Your task to perform on an android device: Open location settings Image 0: 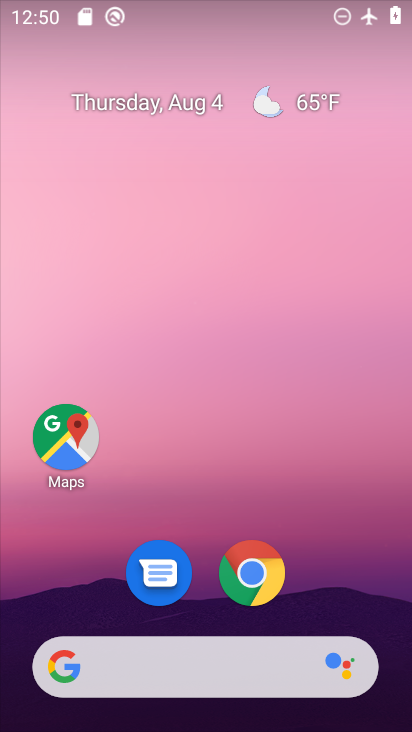
Step 0: drag from (350, 535) to (357, 115)
Your task to perform on an android device: Open location settings Image 1: 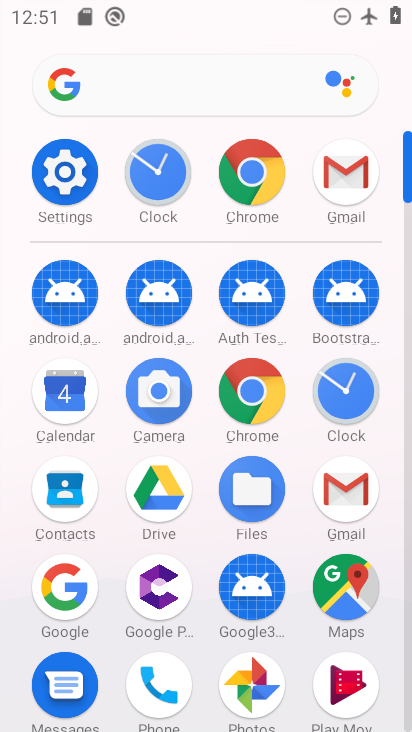
Step 1: click (66, 168)
Your task to perform on an android device: Open location settings Image 2: 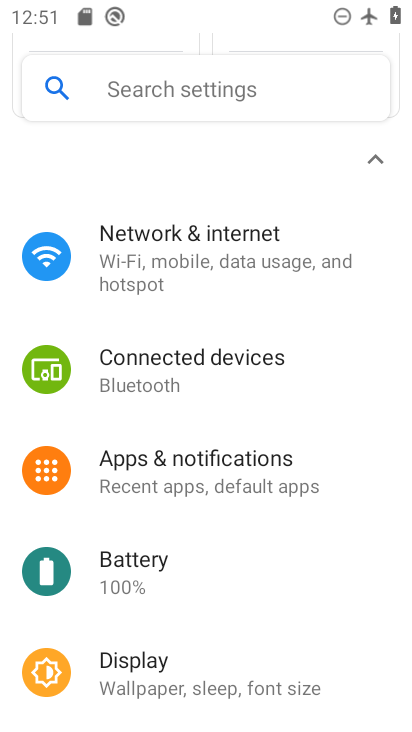
Step 2: drag from (273, 569) to (363, 79)
Your task to perform on an android device: Open location settings Image 3: 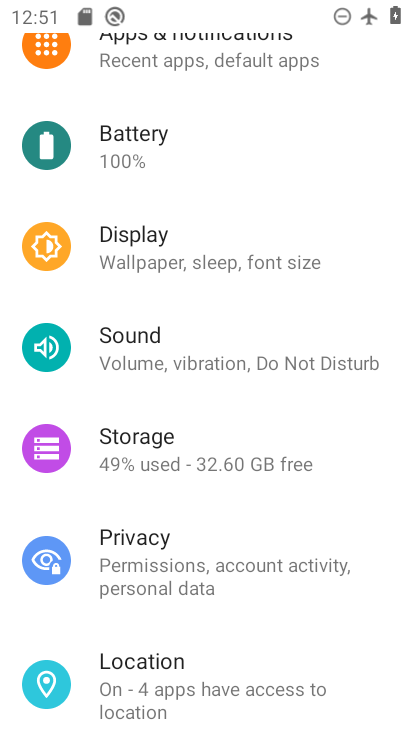
Step 3: click (149, 684)
Your task to perform on an android device: Open location settings Image 4: 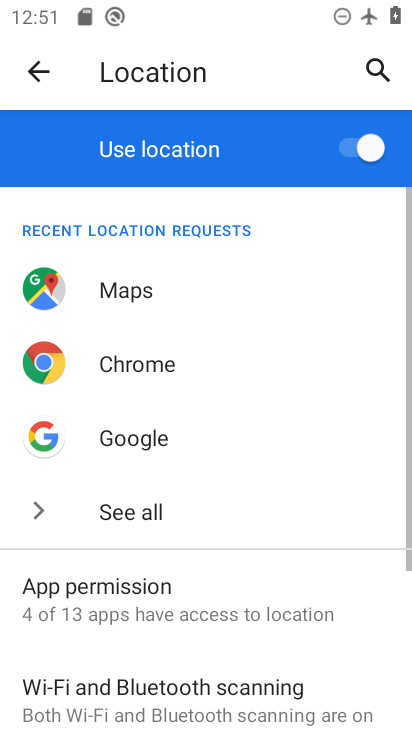
Step 4: task complete